Your task to perform on an android device: Search for the best vacuum on Amazon. Image 0: 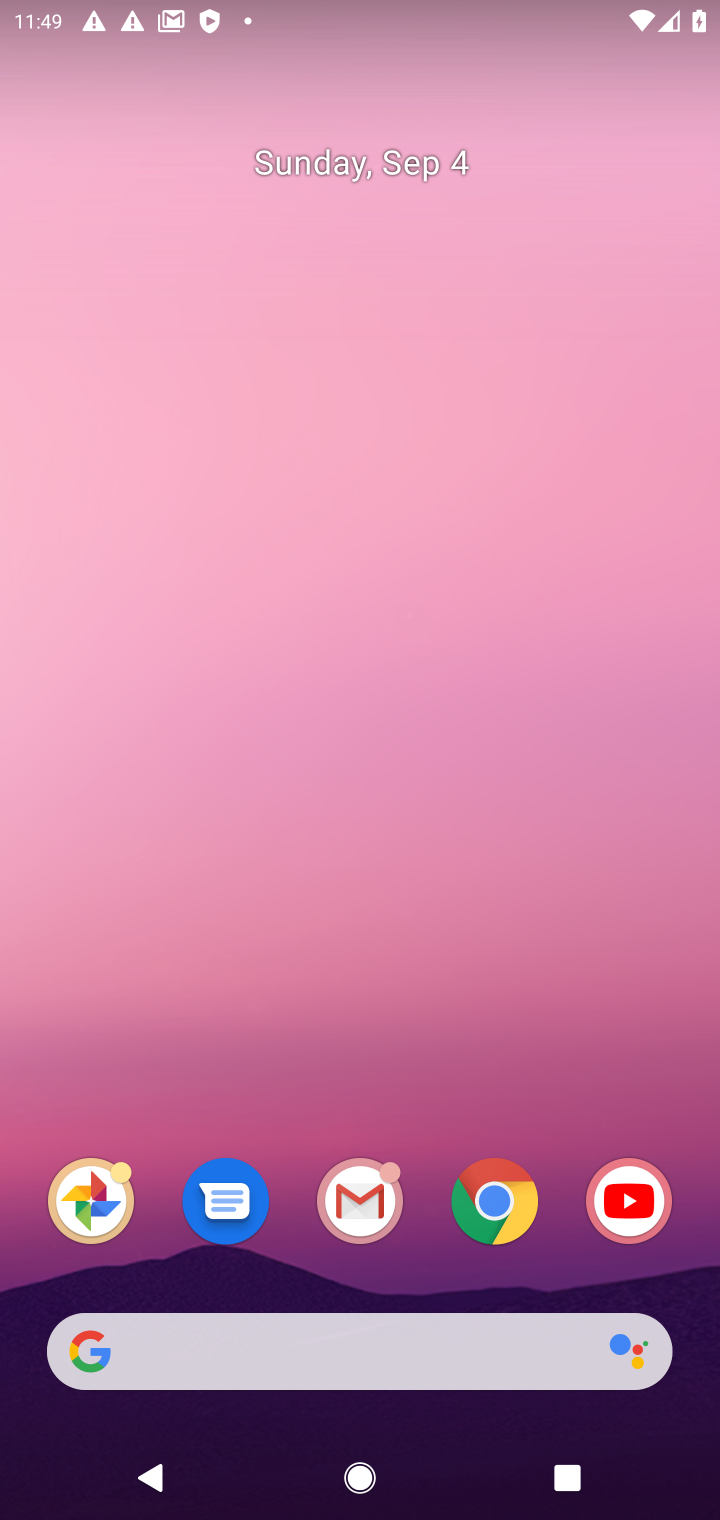
Step 0: click (489, 1185)
Your task to perform on an android device: Search for the best vacuum on Amazon. Image 1: 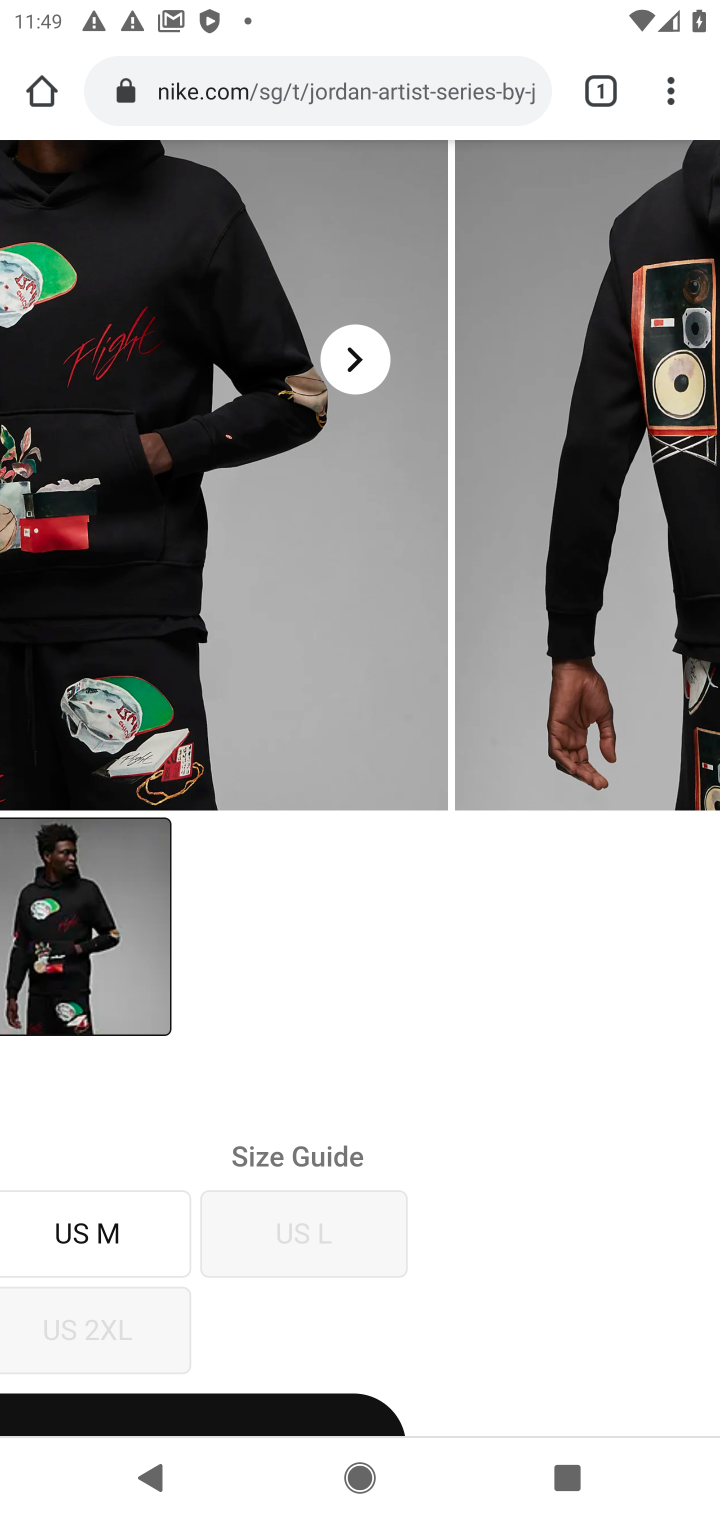
Step 1: click (297, 92)
Your task to perform on an android device: Search for the best vacuum on Amazon. Image 2: 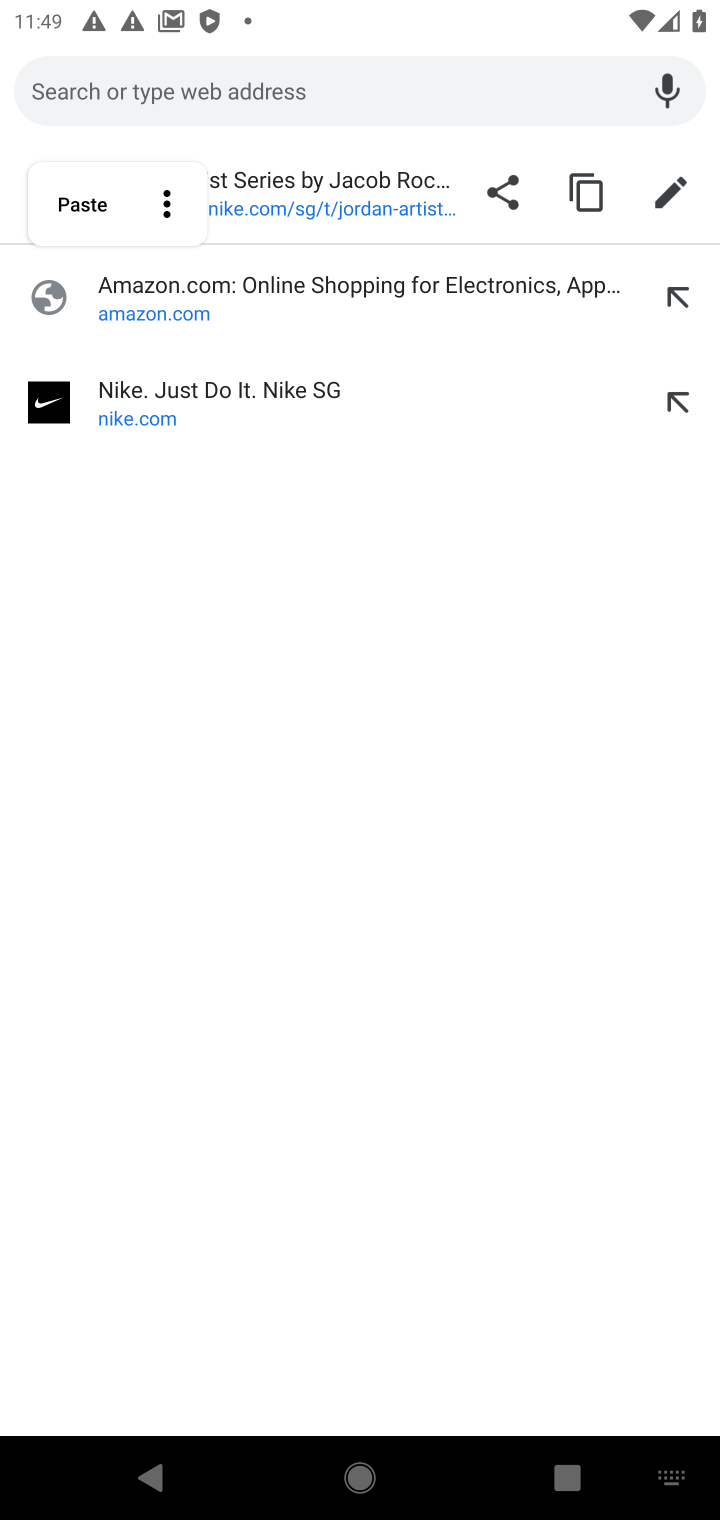
Step 2: type "amazon"
Your task to perform on an android device: Search for the best vacuum on Amazon. Image 3: 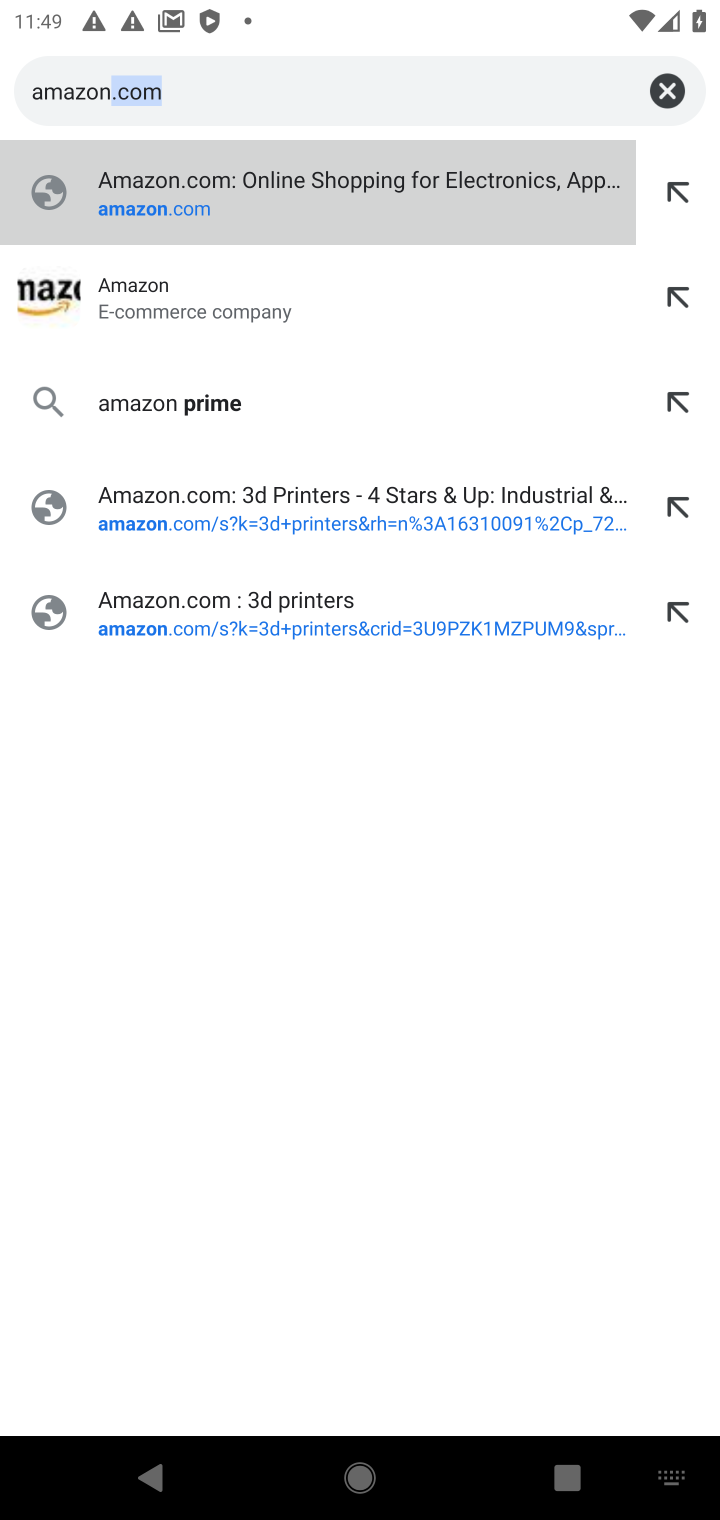
Step 3: click (156, 295)
Your task to perform on an android device: Search for the best vacuum on Amazon. Image 4: 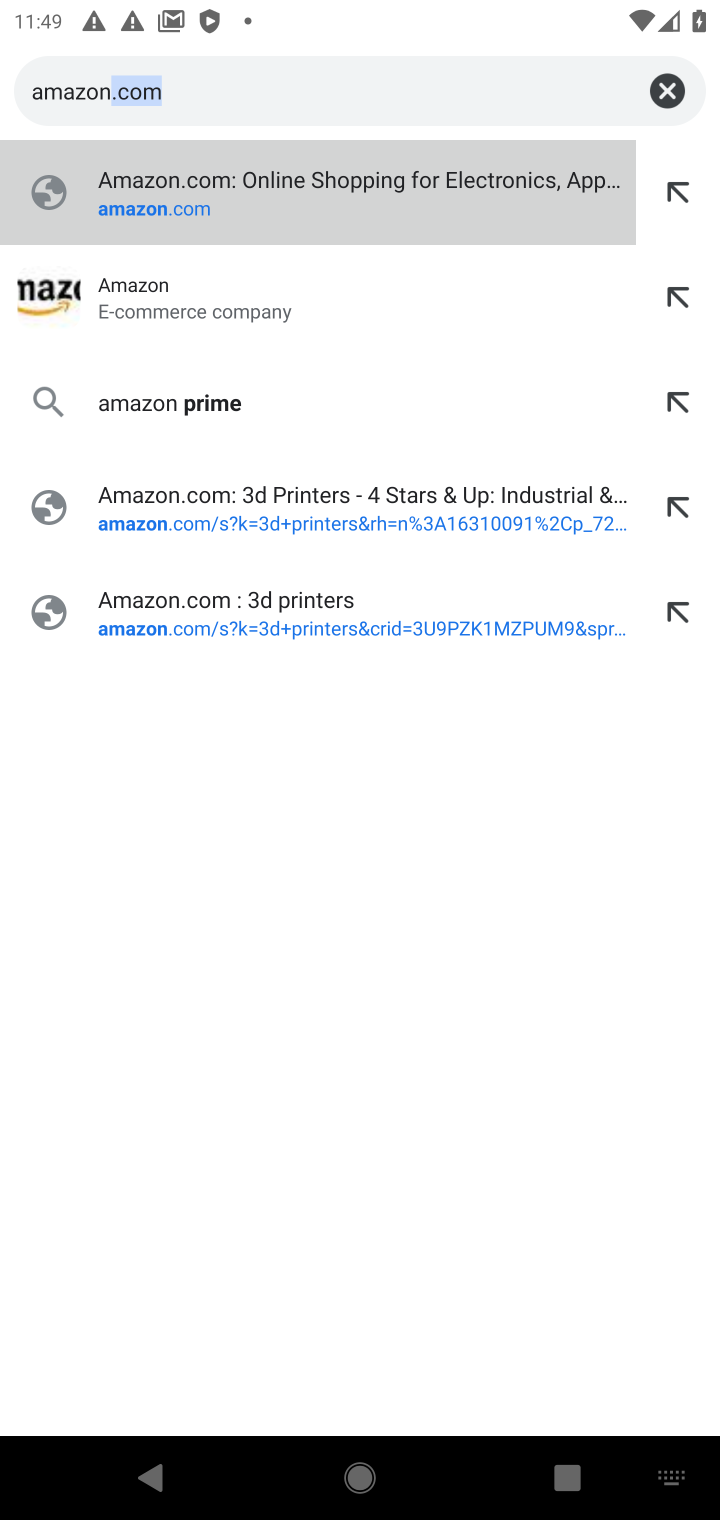
Step 4: click (116, 301)
Your task to perform on an android device: Search for the best vacuum on Amazon. Image 5: 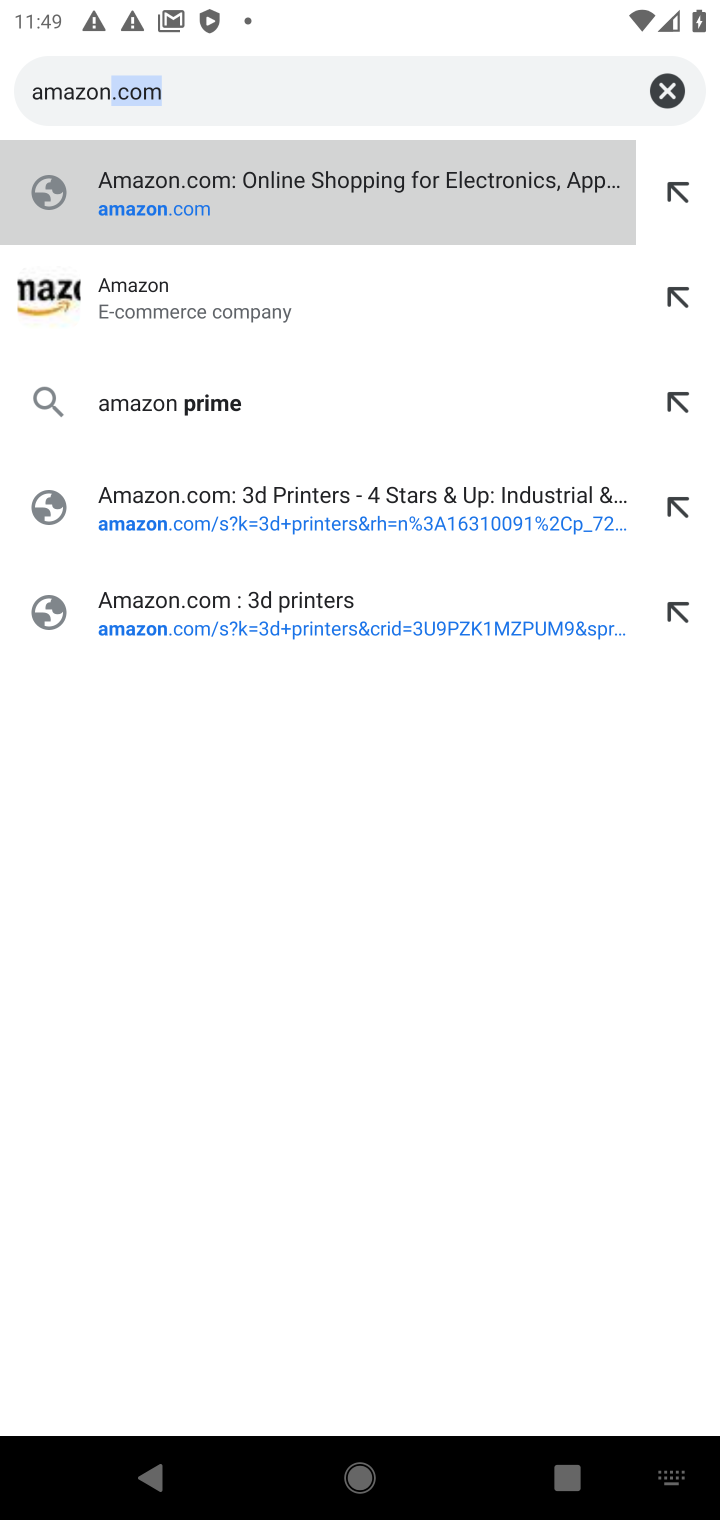
Step 5: click (100, 302)
Your task to perform on an android device: Search for the best vacuum on Amazon. Image 6: 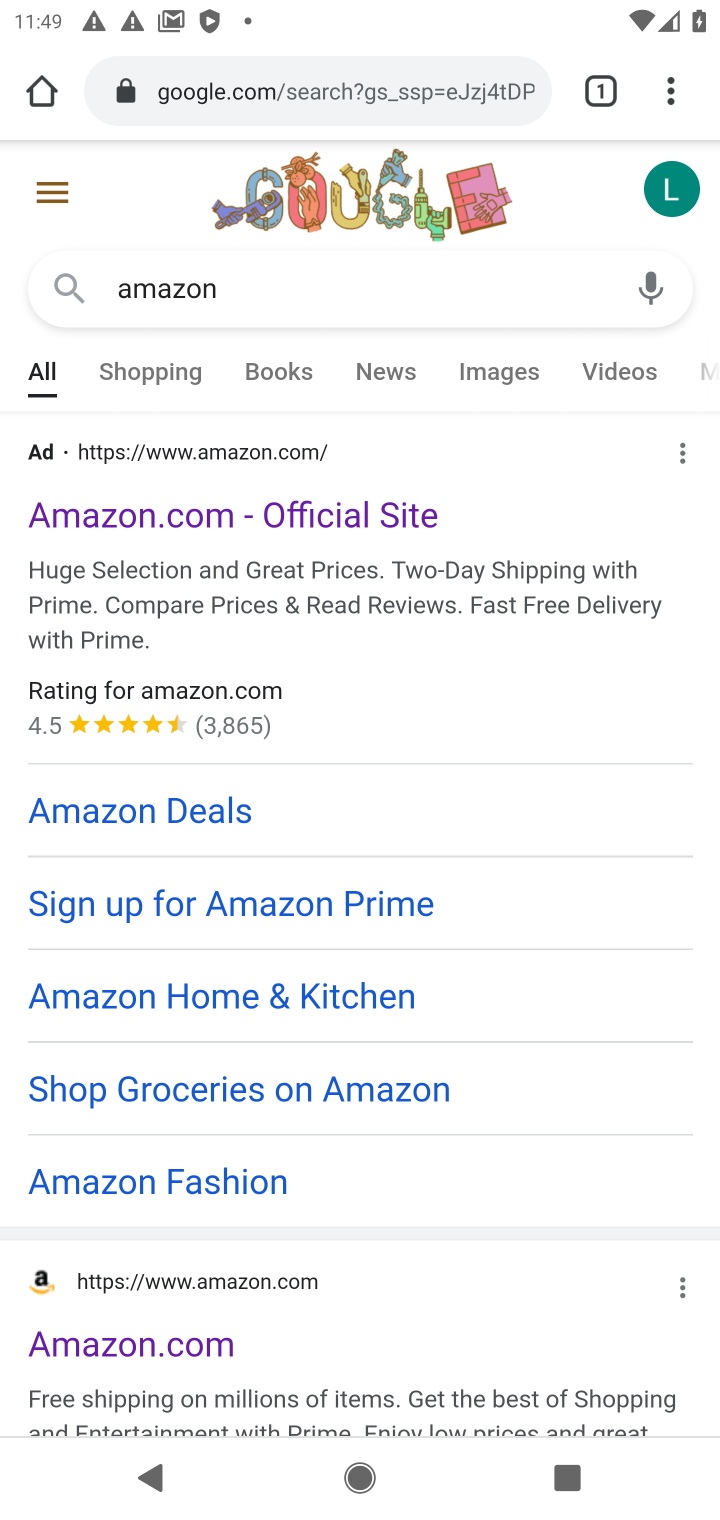
Step 6: drag from (561, 1120) to (590, 419)
Your task to perform on an android device: Search for the best vacuum on Amazon. Image 7: 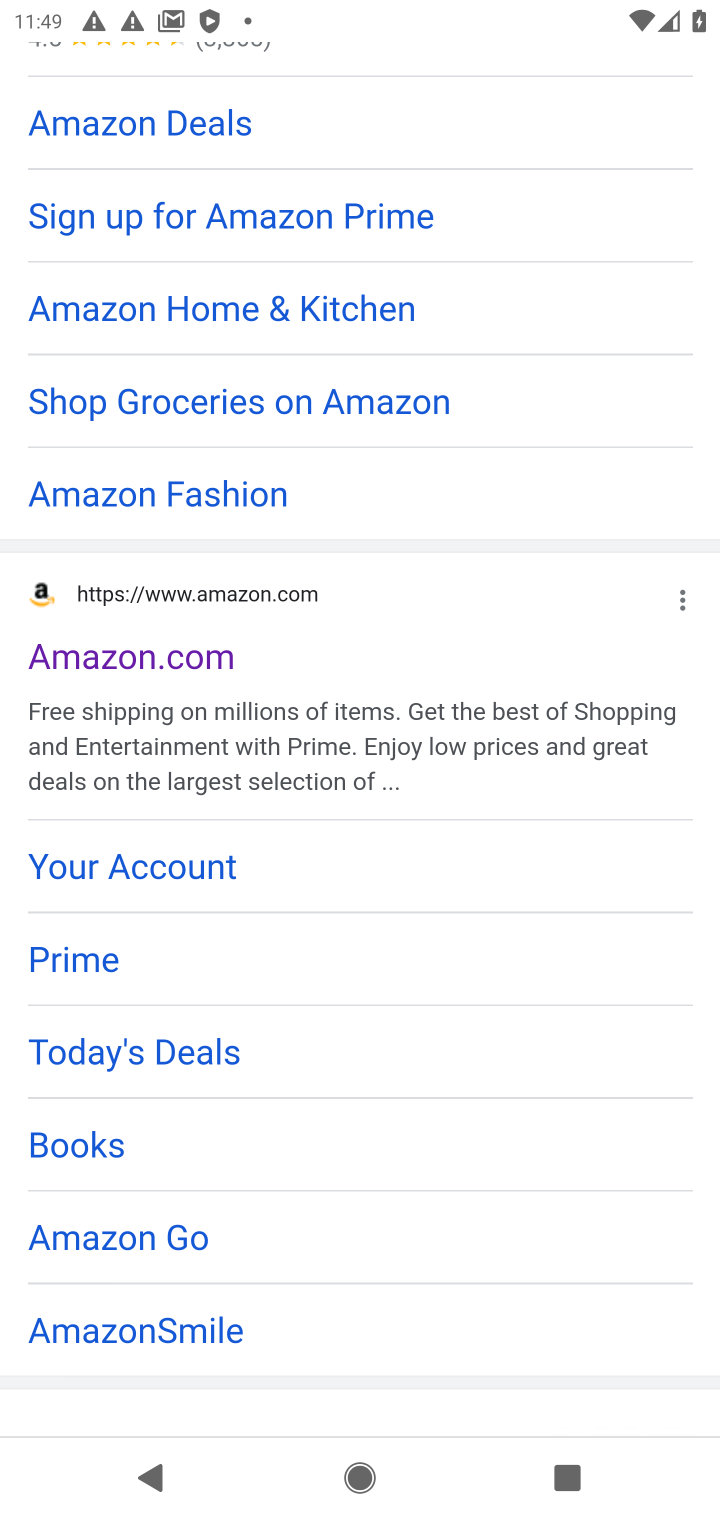
Step 7: click (88, 661)
Your task to perform on an android device: Search for the best vacuum on Amazon. Image 8: 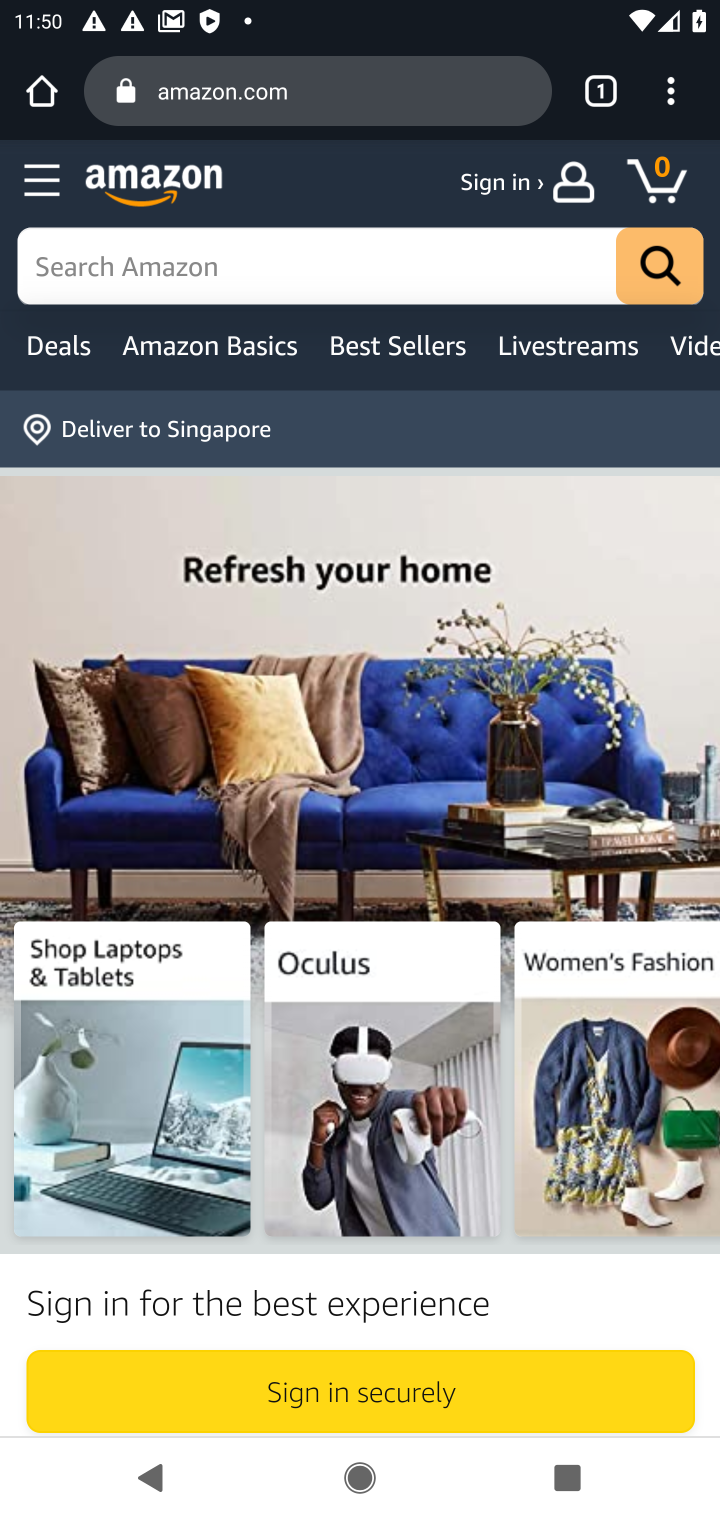
Step 8: click (379, 266)
Your task to perform on an android device: Search for the best vacuum on Amazon. Image 9: 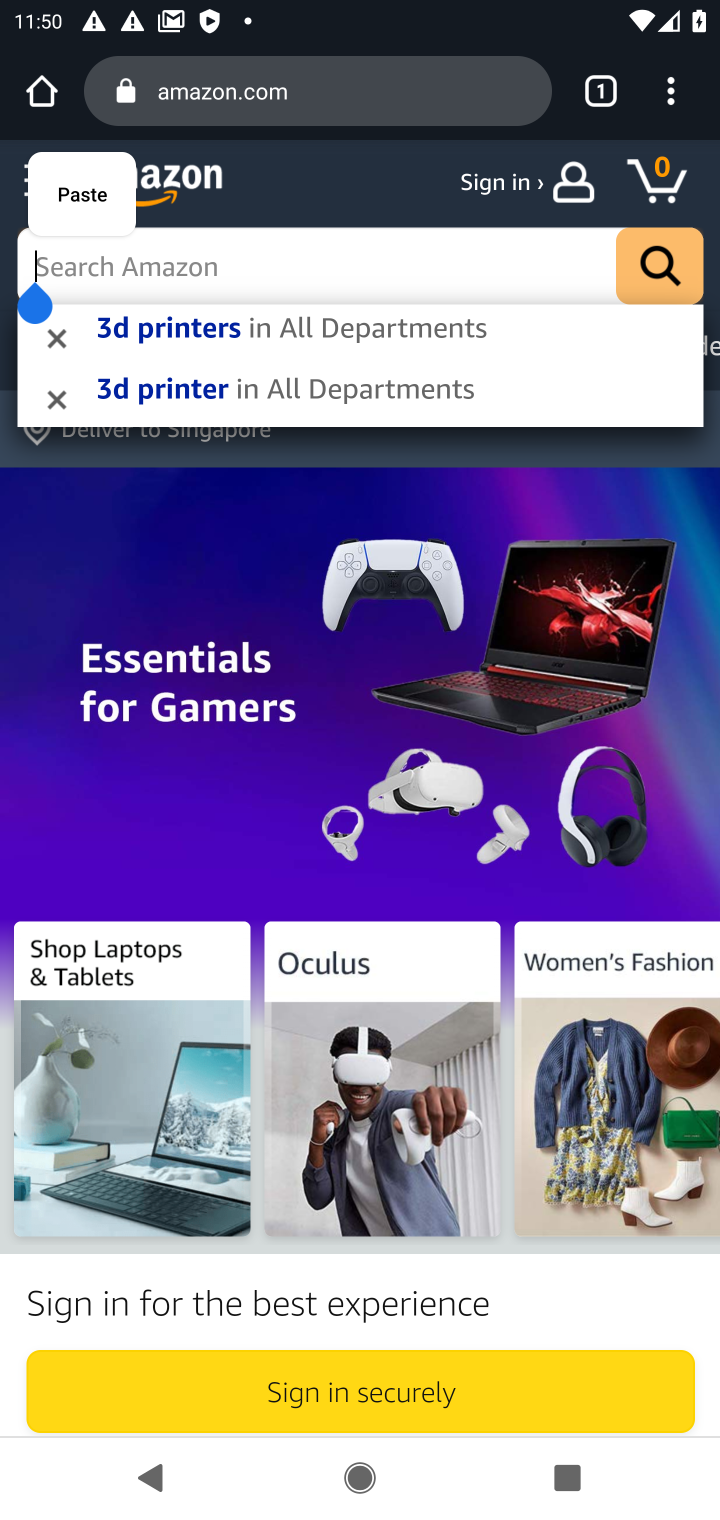
Step 9: type "vaccum"
Your task to perform on an android device: Search for the best vacuum on Amazon. Image 10: 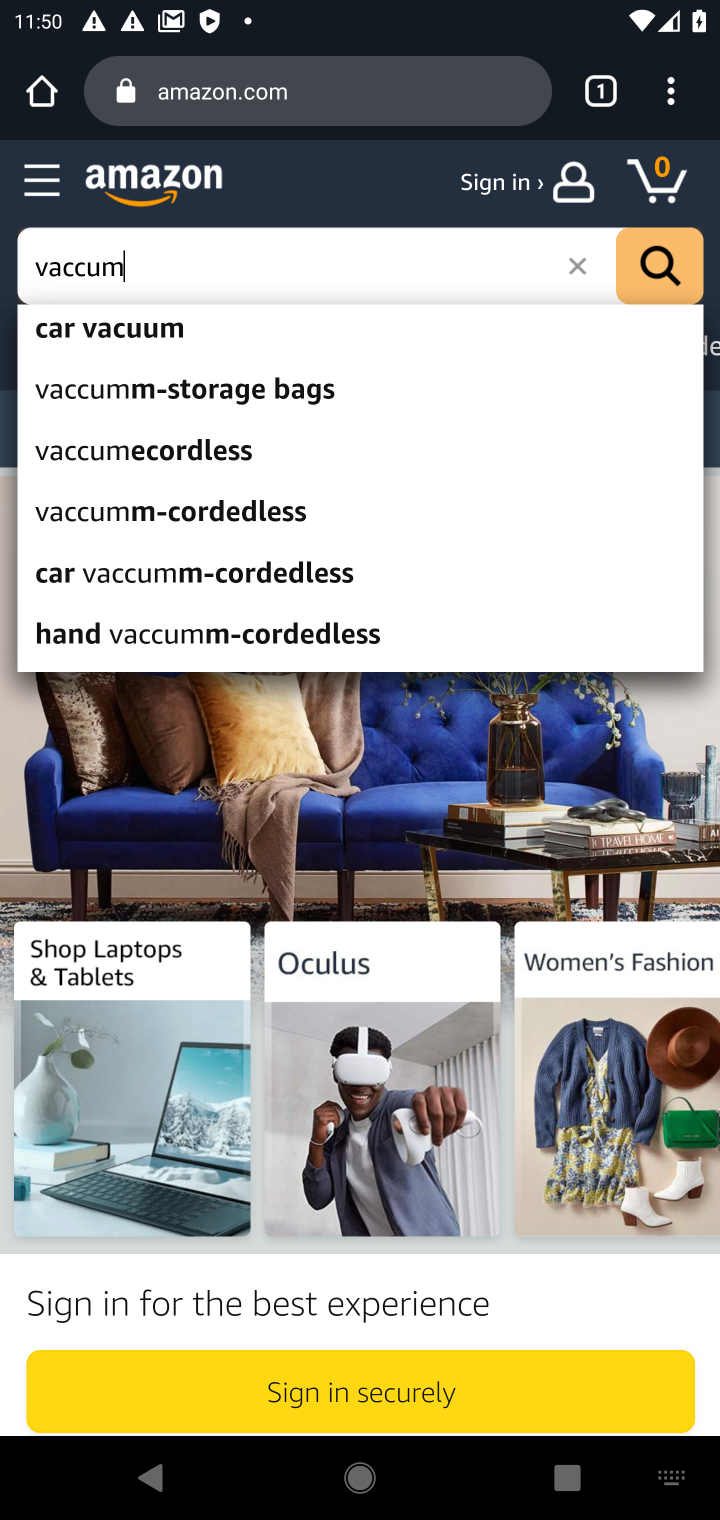
Step 10: click (130, 384)
Your task to perform on an android device: Search for the best vacuum on Amazon. Image 11: 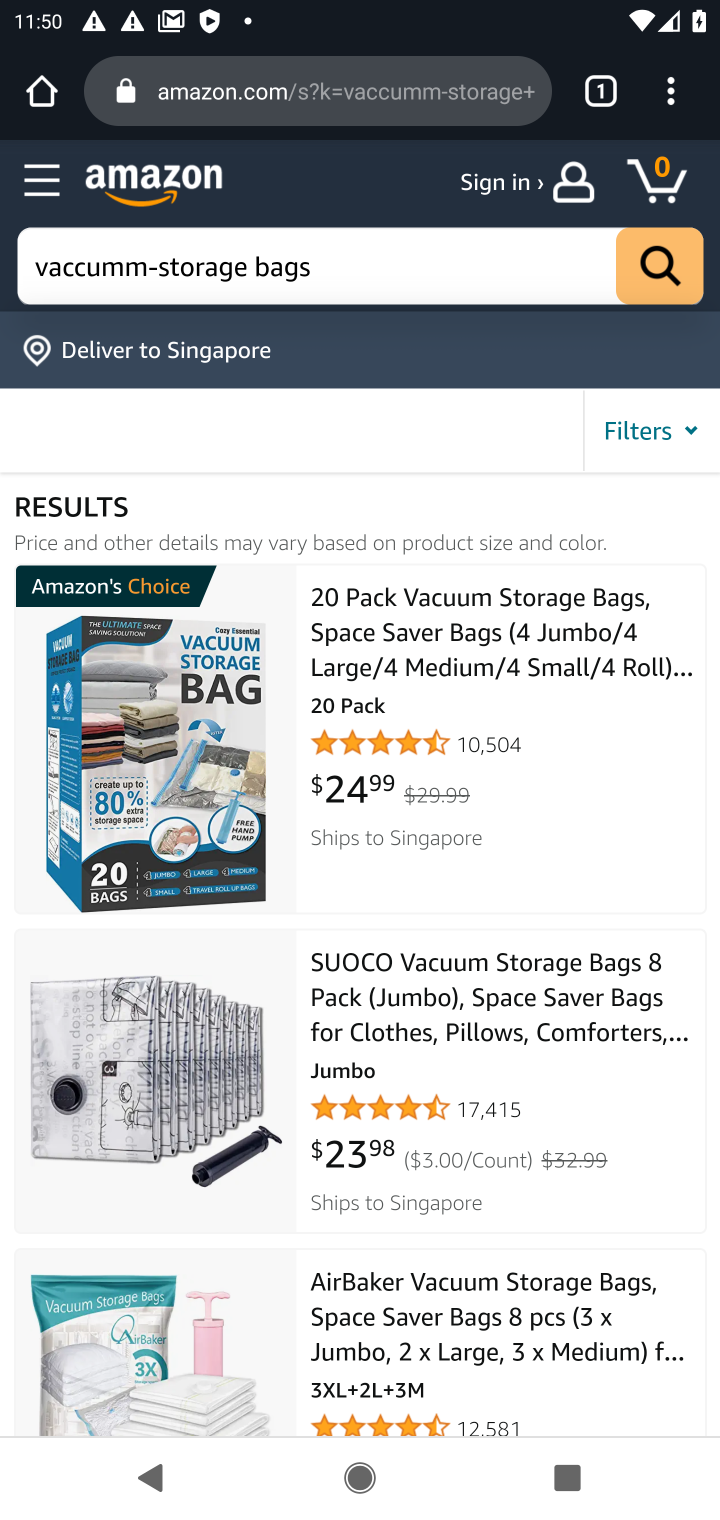
Step 11: drag from (592, 1230) to (601, 589)
Your task to perform on an android device: Search for the best vacuum on Amazon. Image 12: 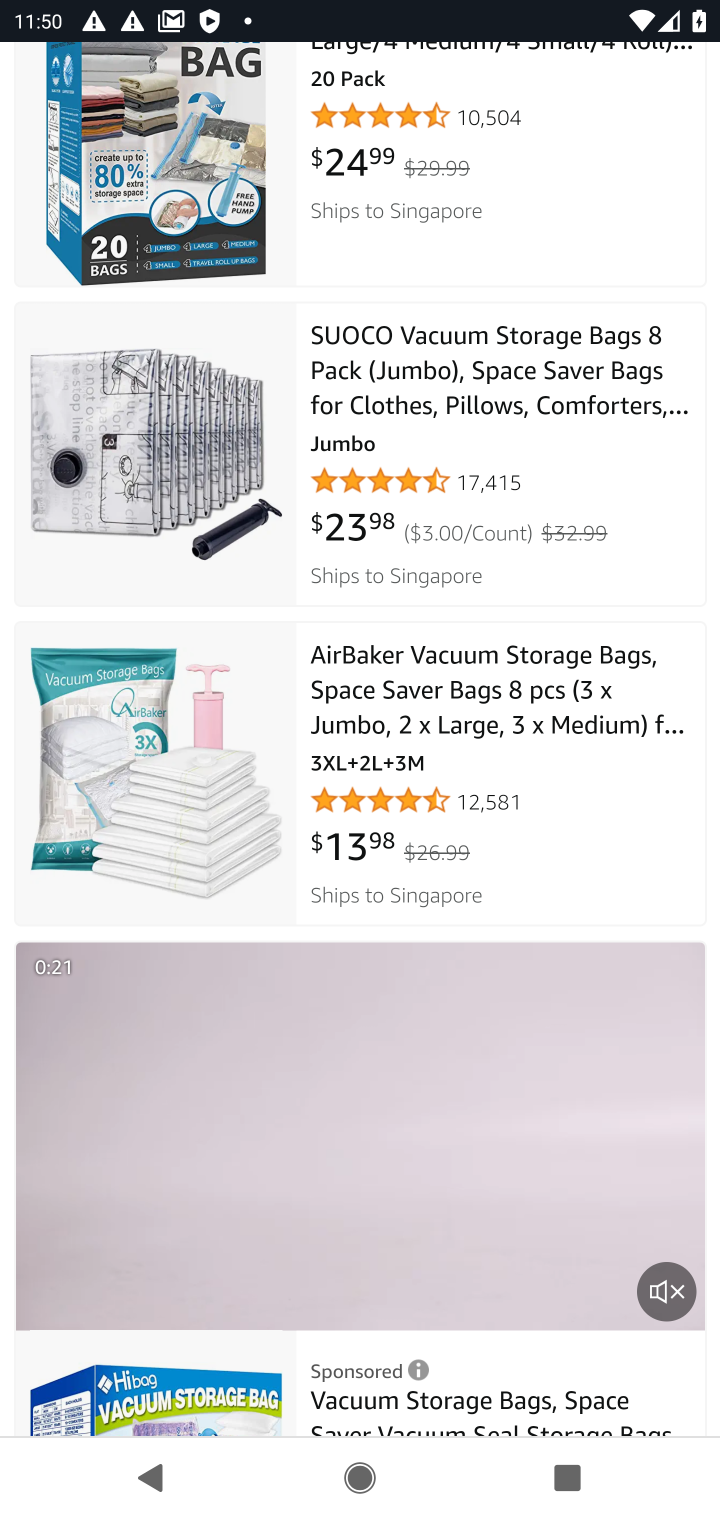
Step 12: drag from (579, 745) to (579, 382)
Your task to perform on an android device: Search for the best vacuum on Amazon. Image 13: 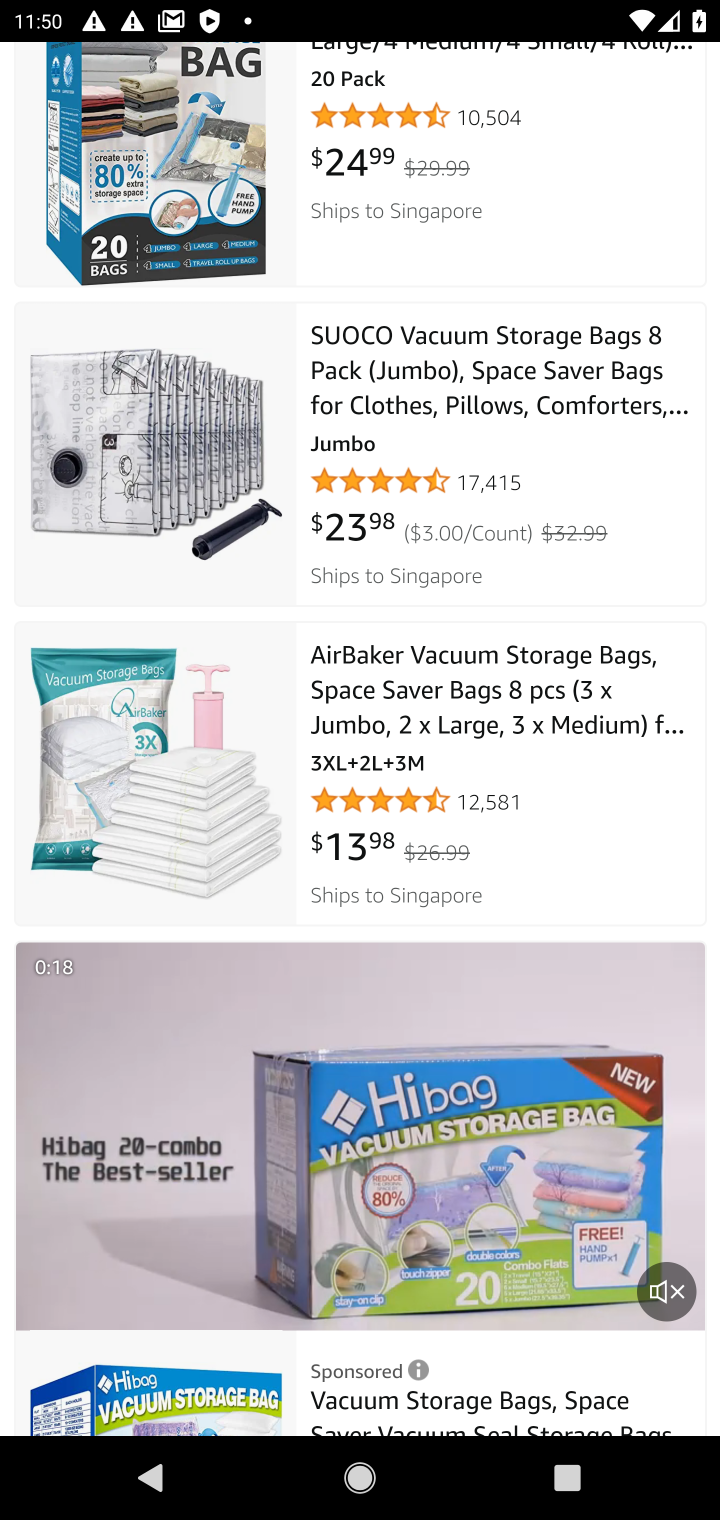
Step 13: drag from (532, 660) to (519, 1150)
Your task to perform on an android device: Search for the best vacuum on Amazon. Image 14: 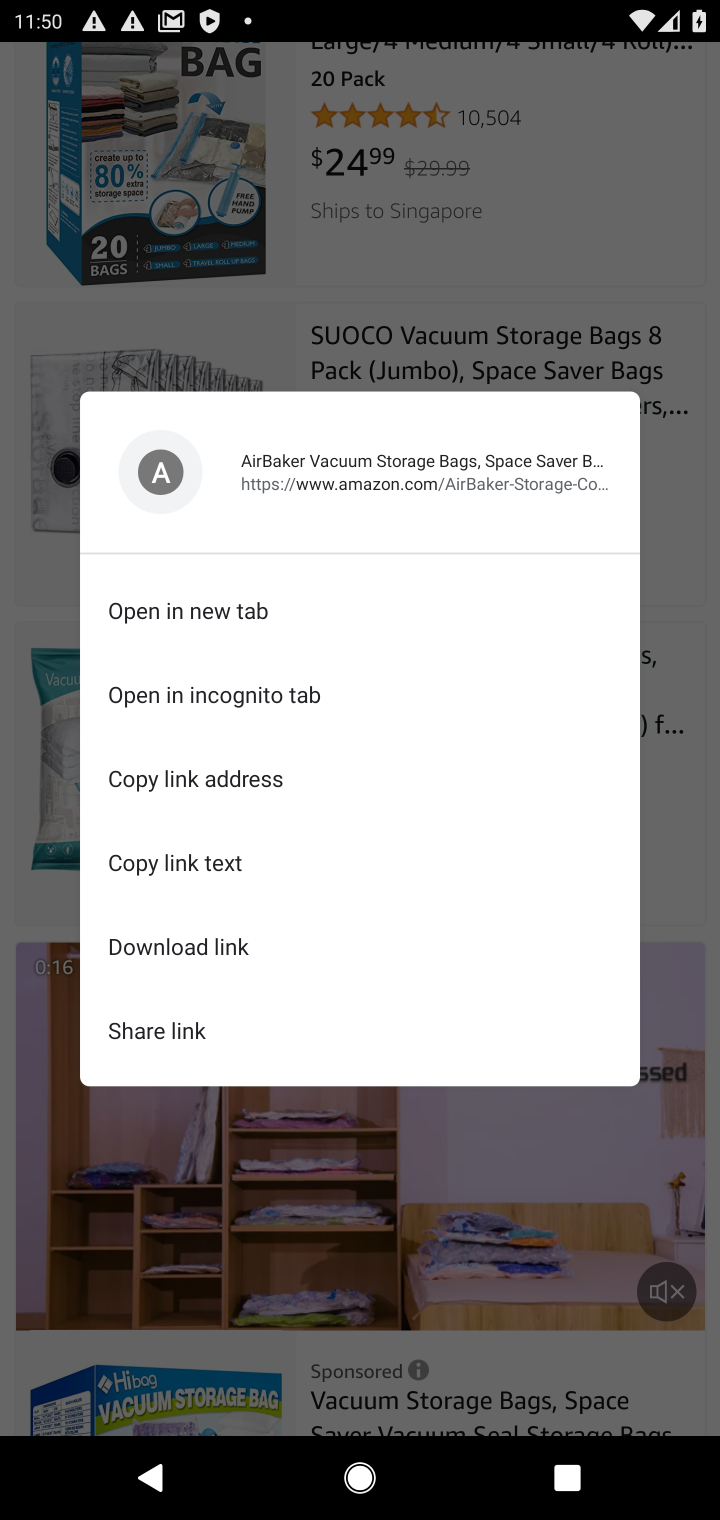
Step 14: drag from (677, 574) to (515, 306)
Your task to perform on an android device: Search for the best vacuum on Amazon. Image 15: 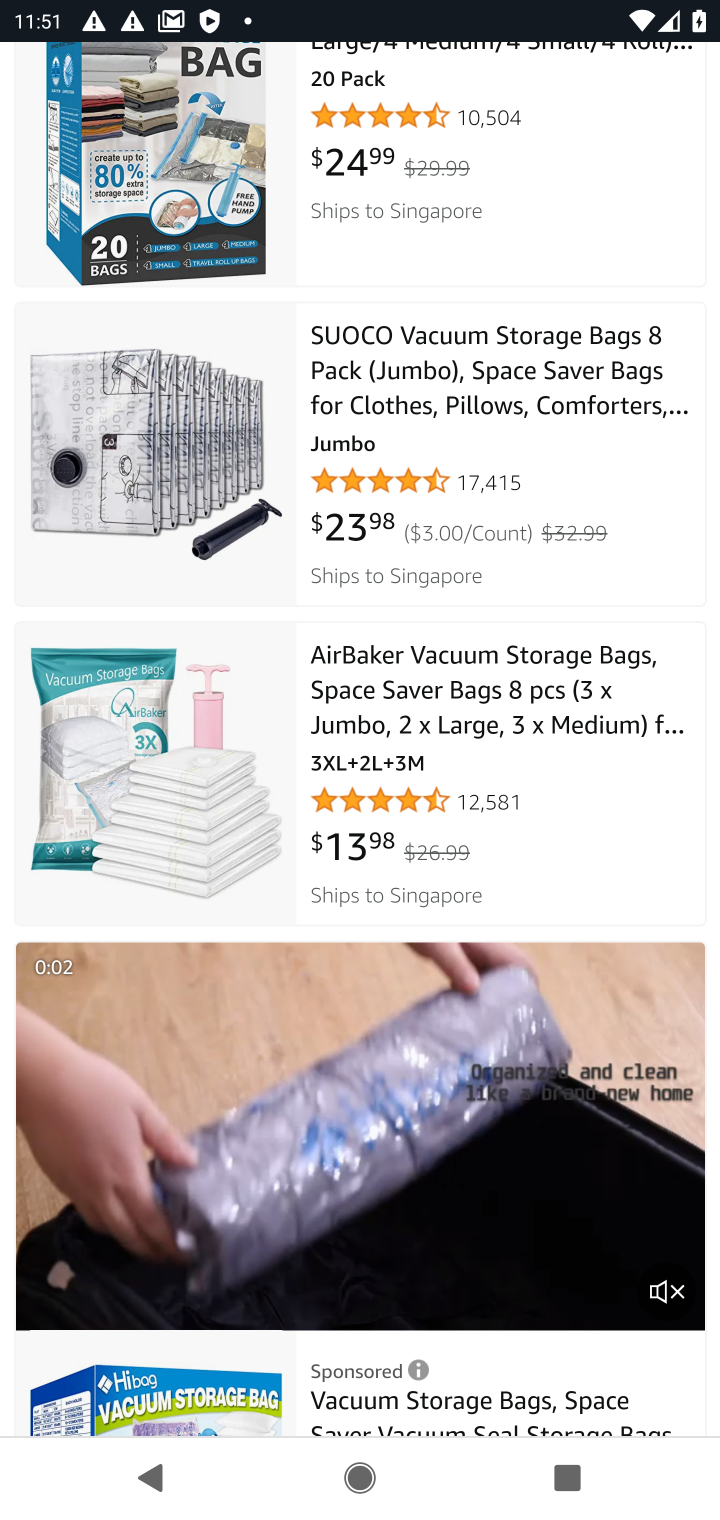
Step 15: drag from (676, 1048) to (591, 397)
Your task to perform on an android device: Search for the best vacuum on Amazon. Image 16: 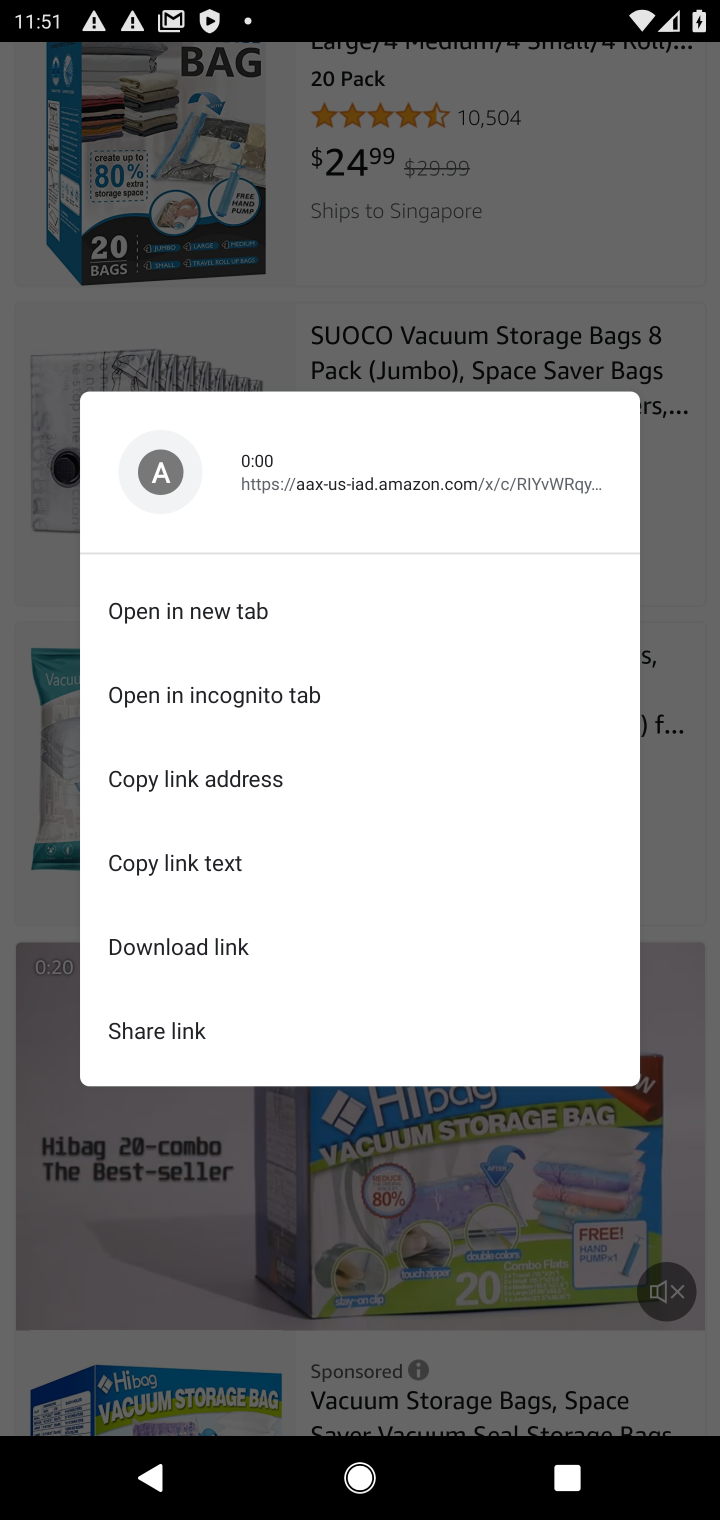
Step 16: click (718, 1297)
Your task to perform on an android device: Search for the best vacuum on Amazon. Image 17: 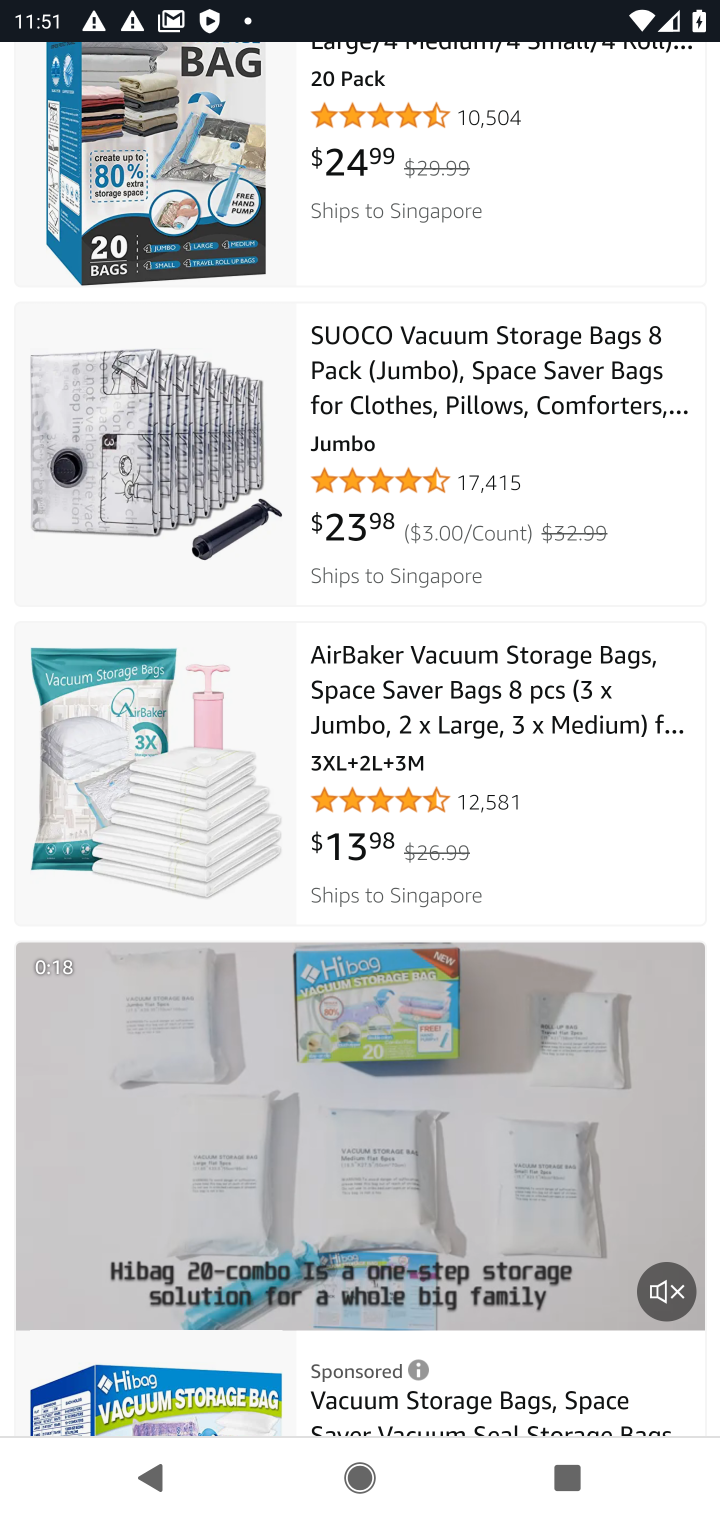
Step 17: drag from (456, 1136) to (590, 1024)
Your task to perform on an android device: Search for the best vacuum on Amazon. Image 18: 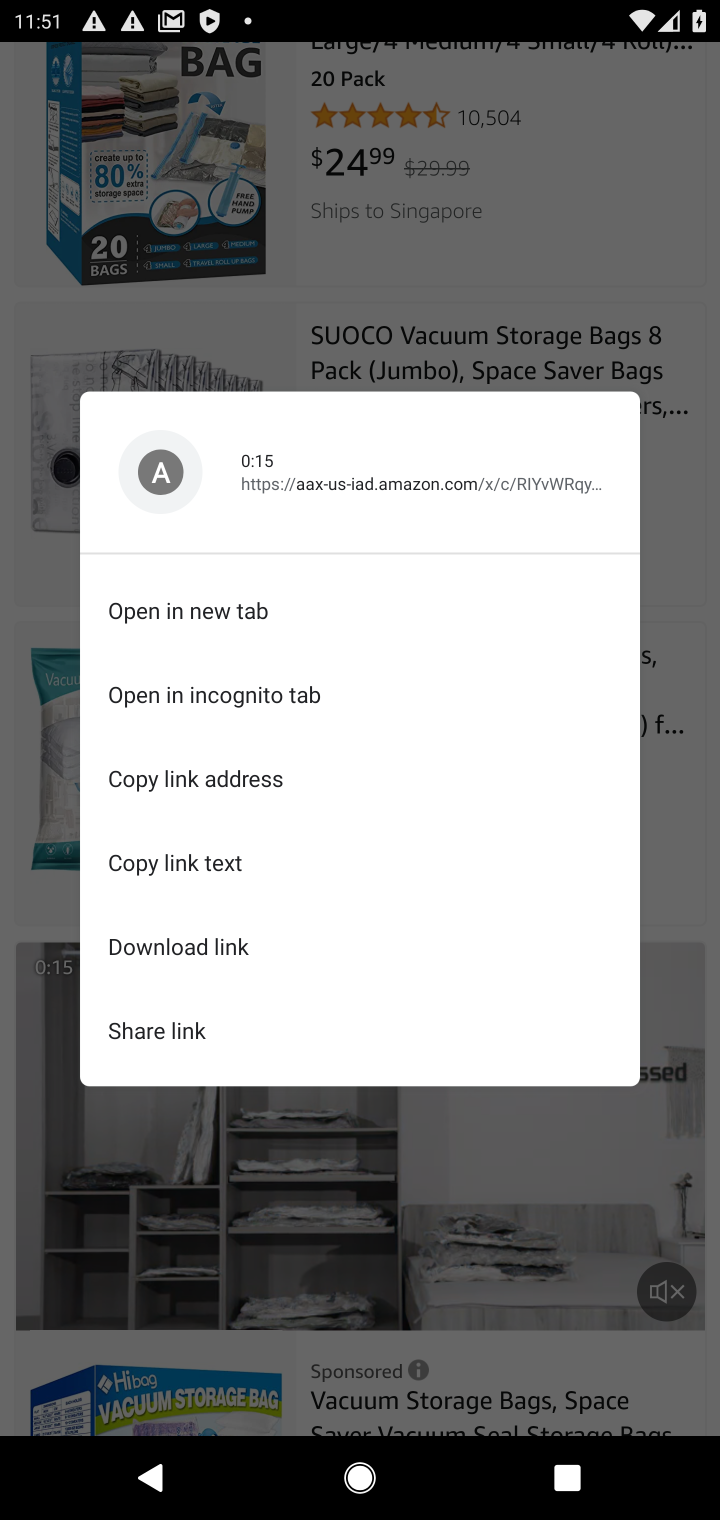
Step 18: click (700, 440)
Your task to perform on an android device: Search for the best vacuum on Amazon. Image 19: 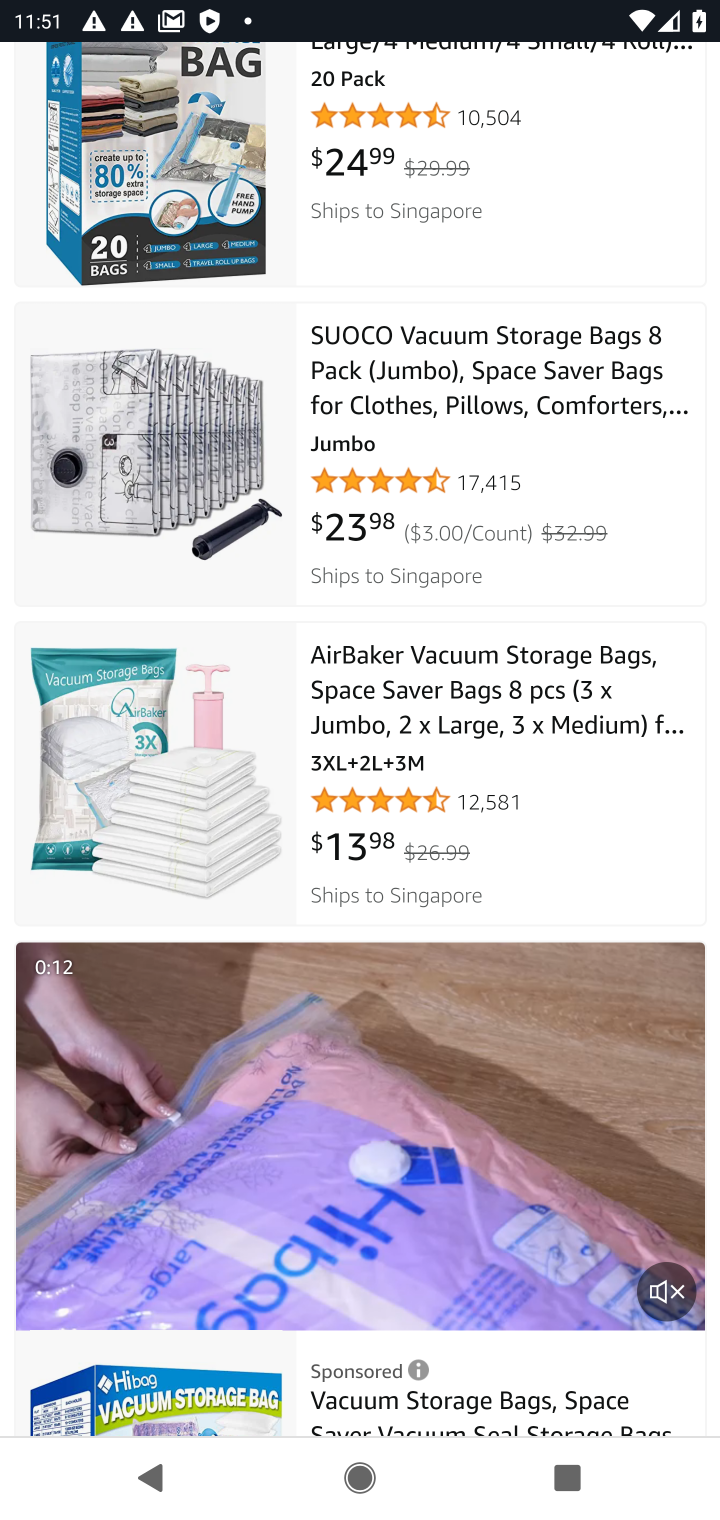
Step 19: task complete